Your task to perform on an android device: Open Chrome and go to settings Image 0: 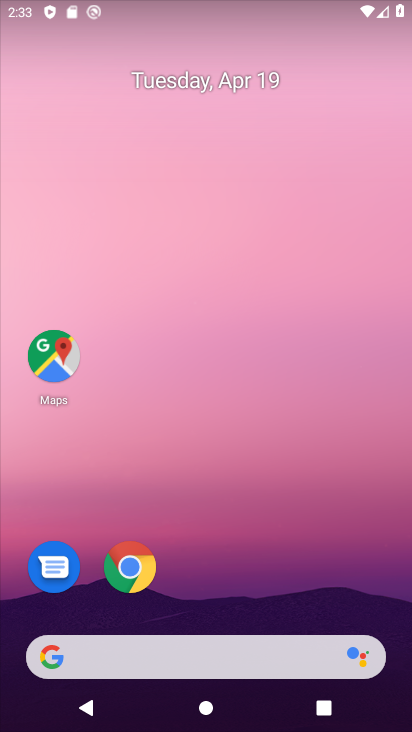
Step 0: drag from (318, 329) to (342, 103)
Your task to perform on an android device: Open Chrome and go to settings Image 1: 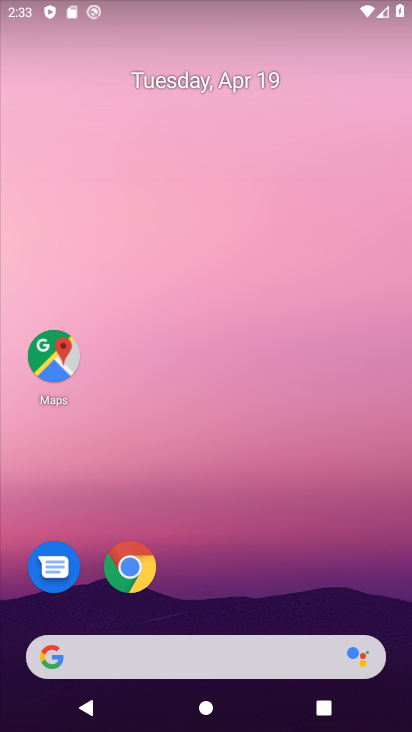
Step 1: drag from (319, 489) to (295, 10)
Your task to perform on an android device: Open Chrome and go to settings Image 2: 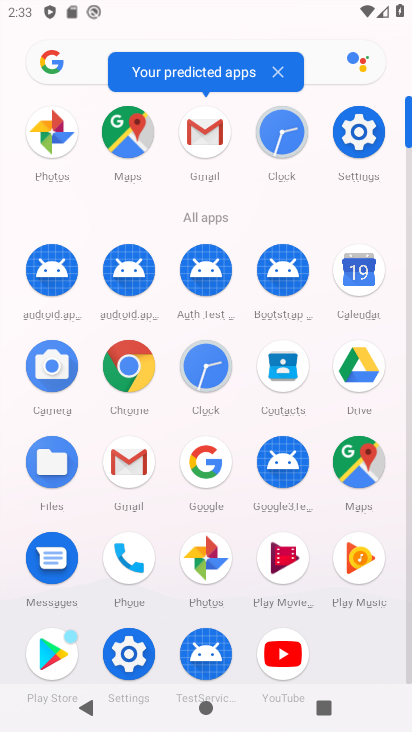
Step 2: click (115, 380)
Your task to perform on an android device: Open Chrome and go to settings Image 3: 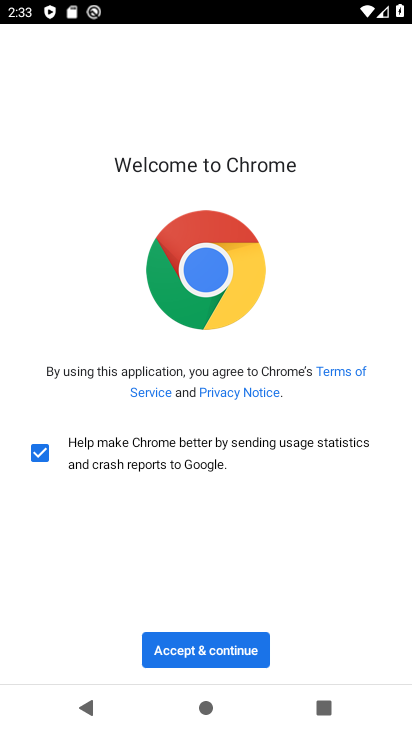
Step 3: click (249, 656)
Your task to perform on an android device: Open Chrome and go to settings Image 4: 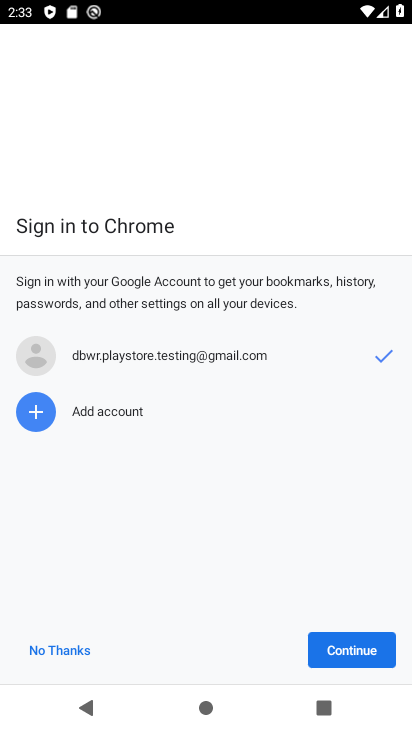
Step 4: click (51, 648)
Your task to perform on an android device: Open Chrome and go to settings Image 5: 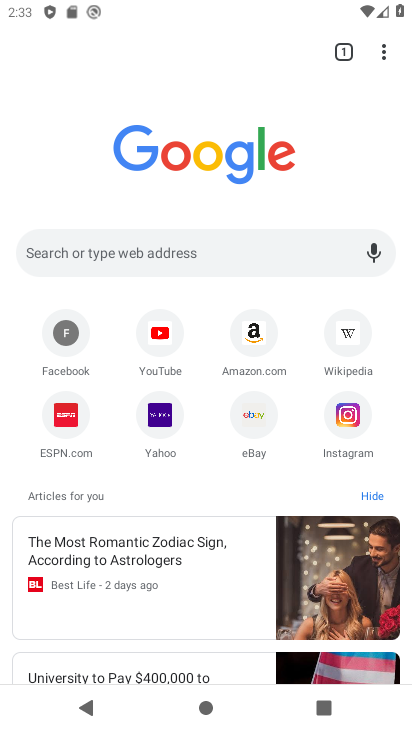
Step 5: task complete